Your task to perform on an android device: set the timer Image 0: 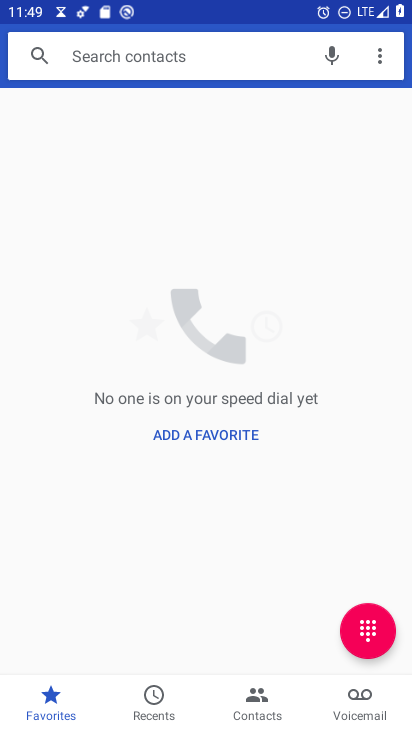
Step 0: press home button
Your task to perform on an android device: set the timer Image 1: 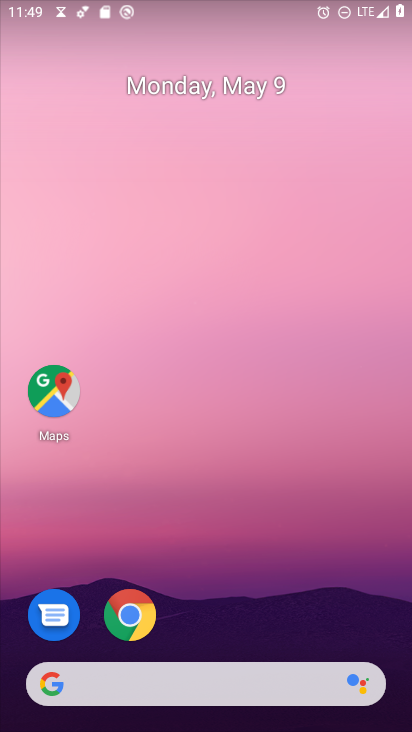
Step 1: drag from (196, 720) to (196, 126)
Your task to perform on an android device: set the timer Image 2: 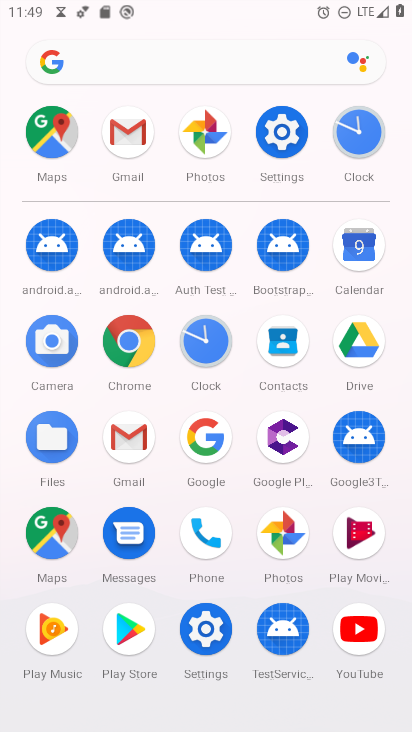
Step 2: click (211, 351)
Your task to perform on an android device: set the timer Image 3: 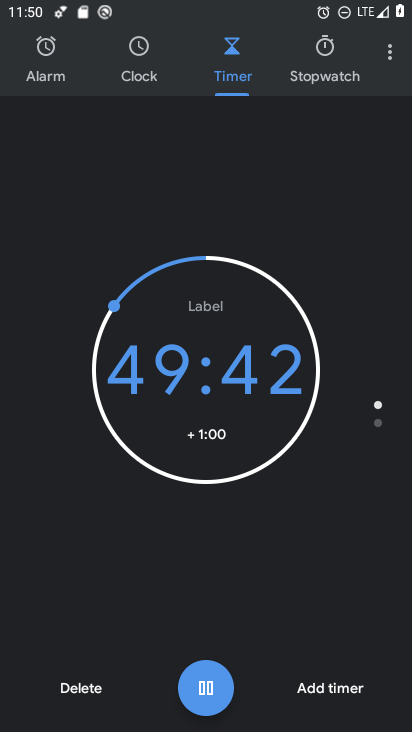
Step 3: click (340, 689)
Your task to perform on an android device: set the timer Image 4: 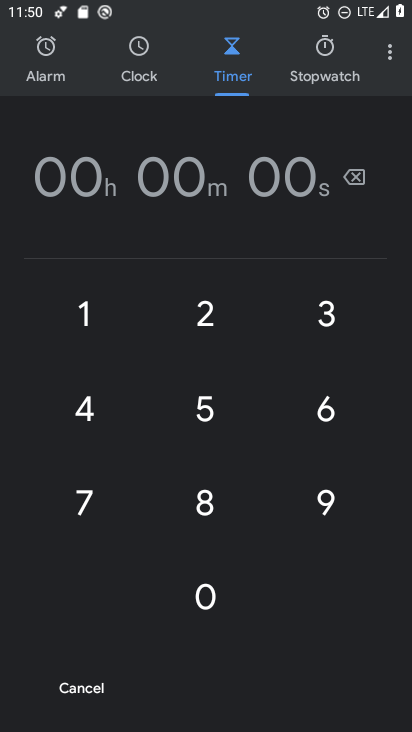
Step 4: click (206, 315)
Your task to perform on an android device: set the timer Image 5: 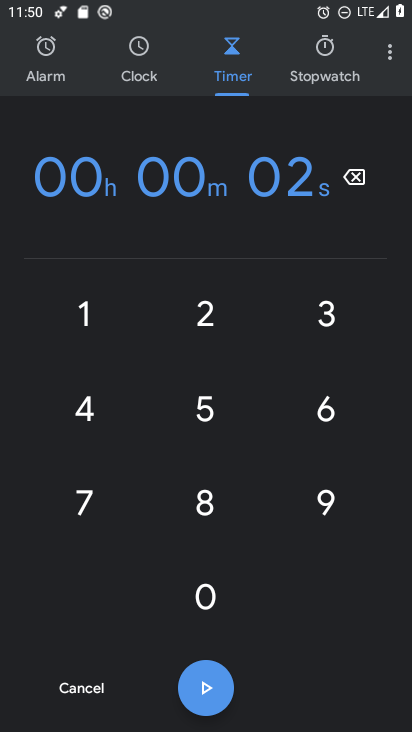
Step 5: click (88, 407)
Your task to perform on an android device: set the timer Image 6: 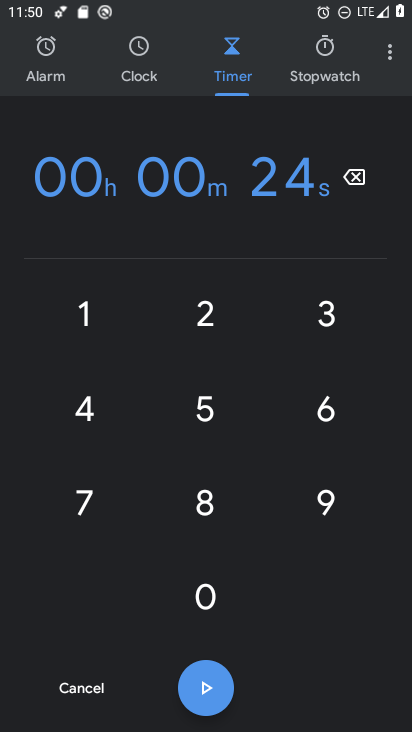
Step 6: click (328, 402)
Your task to perform on an android device: set the timer Image 7: 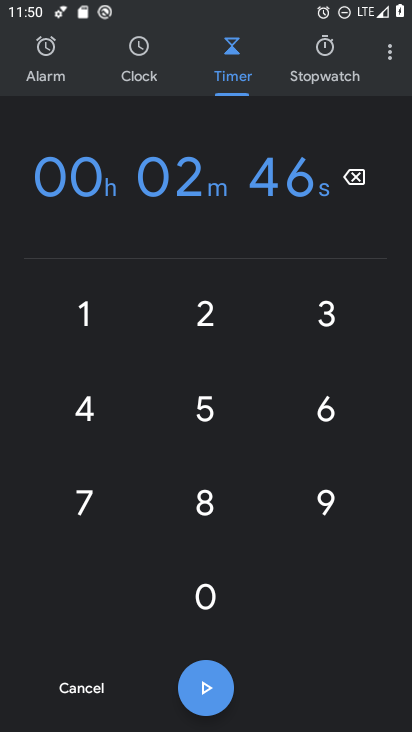
Step 7: click (205, 687)
Your task to perform on an android device: set the timer Image 8: 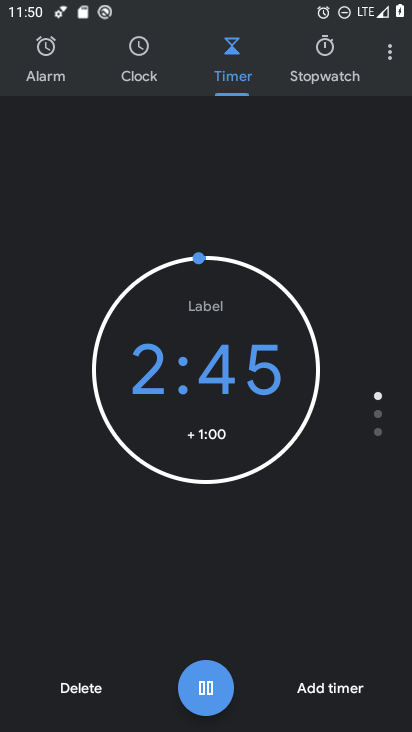
Step 8: task complete